Your task to perform on an android device: Go to calendar. Show me events next week Image 0: 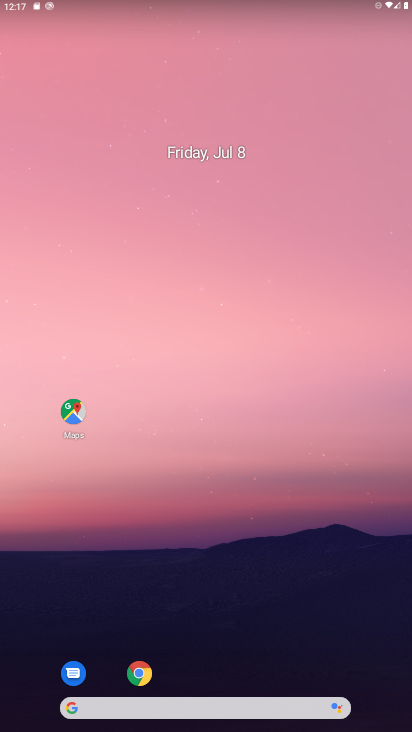
Step 0: drag from (3, 194) to (407, 245)
Your task to perform on an android device: Go to calendar. Show me events next week Image 1: 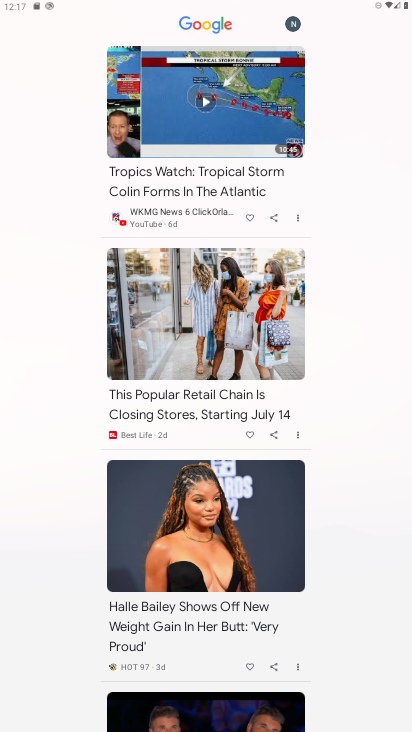
Step 1: drag from (338, 675) to (341, 275)
Your task to perform on an android device: Go to calendar. Show me events next week Image 2: 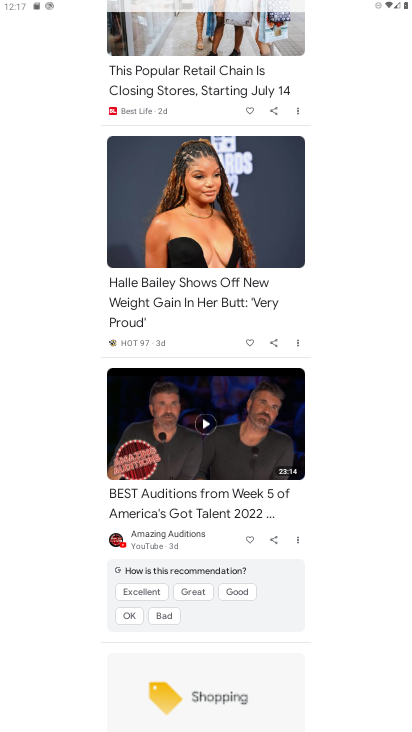
Step 2: drag from (341, 154) to (351, 565)
Your task to perform on an android device: Go to calendar. Show me events next week Image 3: 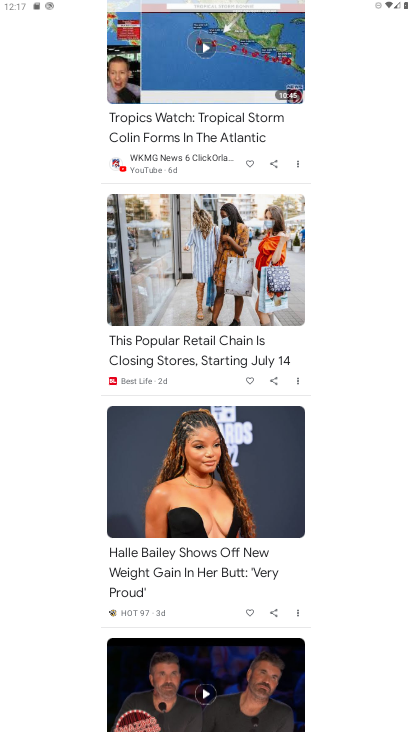
Step 3: drag from (361, 97) to (354, 491)
Your task to perform on an android device: Go to calendar. Show me events next week Image 4: 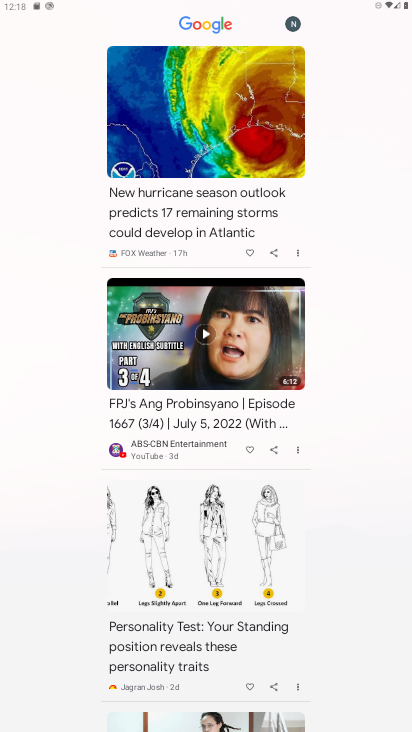
Step 4: drag from (340, 471) to (340, 259)
Your task to perform on an android device: Go to calendar. Show me events next week Image 5: 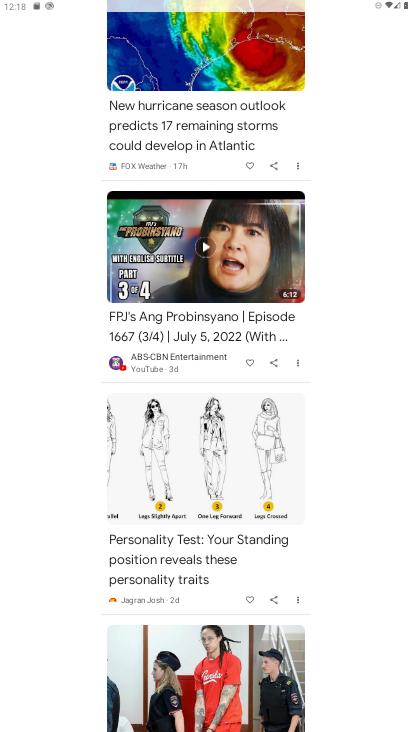
Step 5: press home button
Your task to perform on an android device: Go to calendar. Show me events next week Image 6: 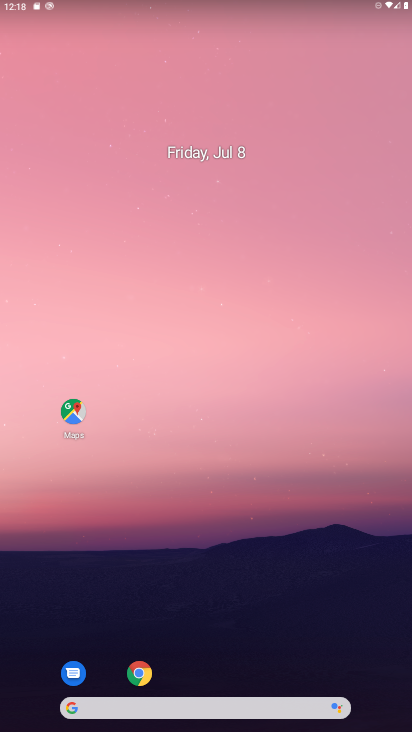
Step 6: drag from (391, 700) to (306, 86)
Your task to perform on an android device: Go to calendar. Show me events next week Image 7: 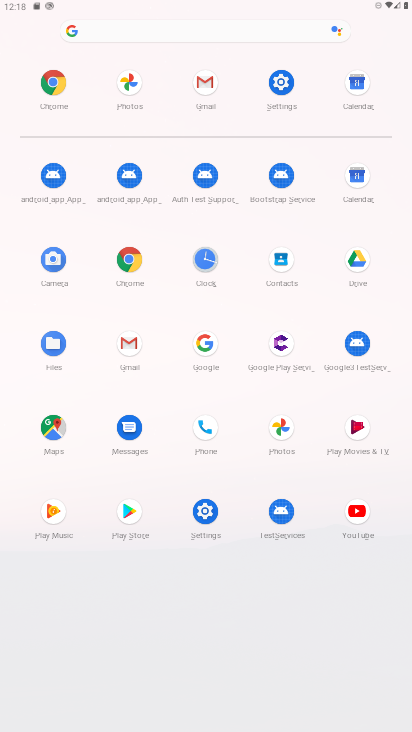
Step 7: click (350, 174)
Your task to perform on an android device: Go to calendar. Show me events next week Image 8: 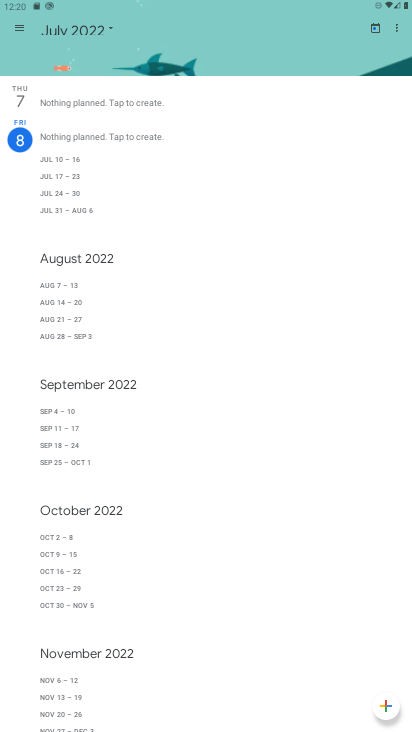
Step 8: click (102, 29)
Your task to perform on an android device: Go to calendar. Show me events next week Image 9: 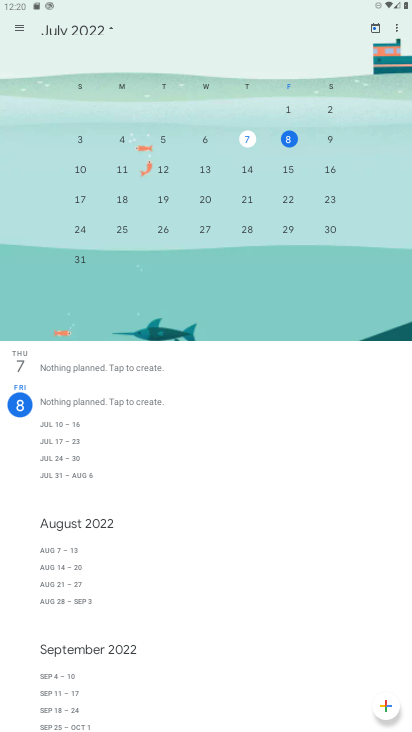
Step 9: click (249, 169)
Your task to perform on an android device: Go to calendar. Show me events next week Image 10: 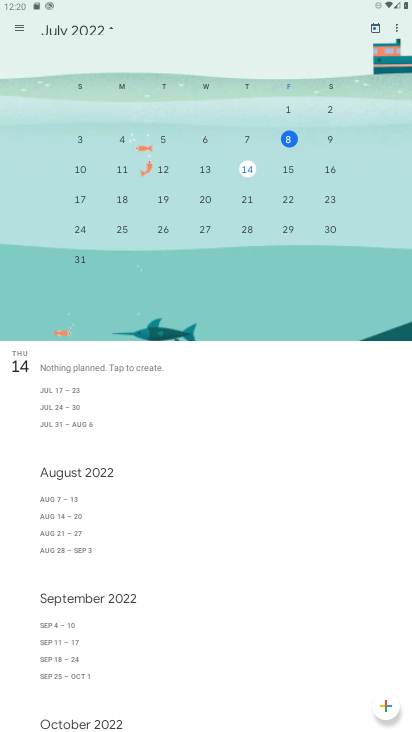
Step 10: task complete